Your task to perform on an android device: open sync settings in chrome Image 0: 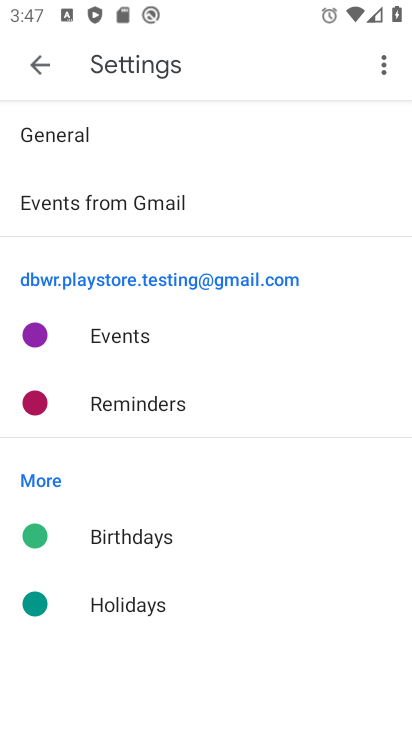
Step 0: press home button
Your task to perform on an android device: open sync settings in chrome Image 1: 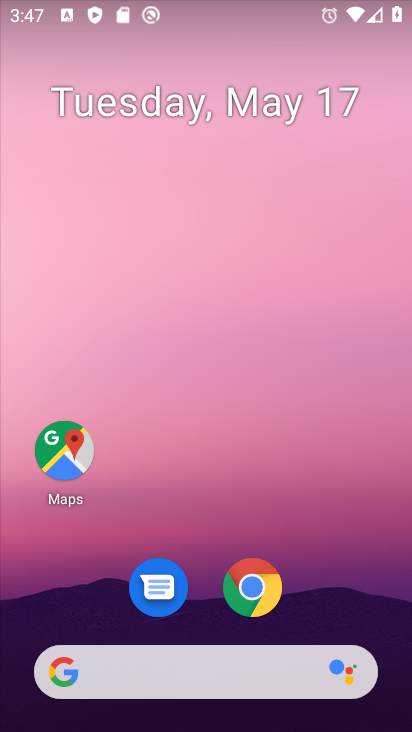
Step 1: drag from (198, 625) to (232, 0)
Your task to perform on an android device: open sync settings in chrome Image 2: 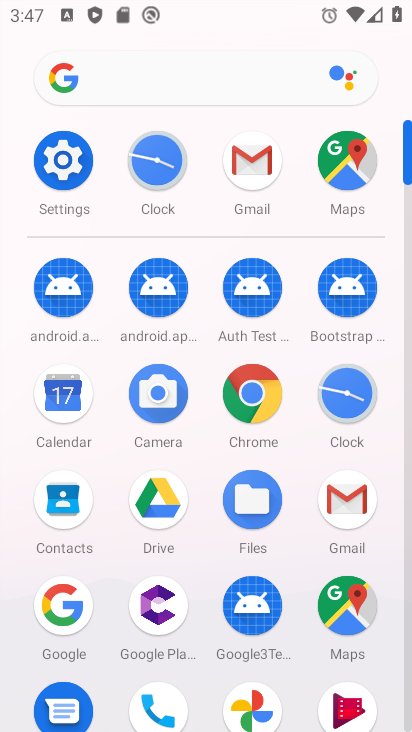
Step 2: click (250, 391)
Your task to perform on an android device: open sync settings in chrome Image 3: 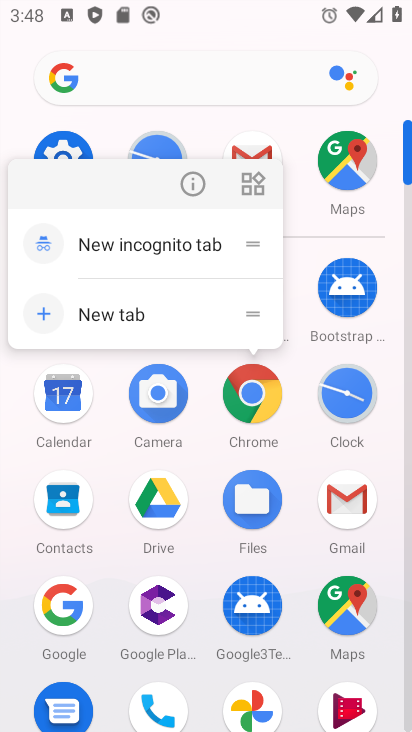
Step 3: click (199, 185)
Your task to perform on an android device: open sync settings in chrome Image 4: 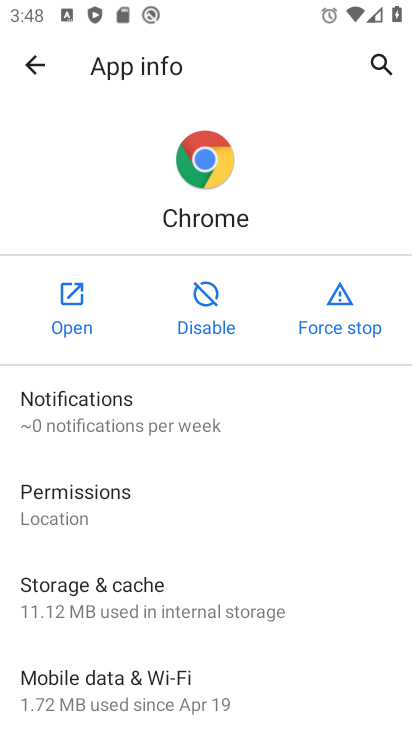
Step 4: click (86, 302)
Your task to perform on an android device: open sync settings in chrome Image 5: 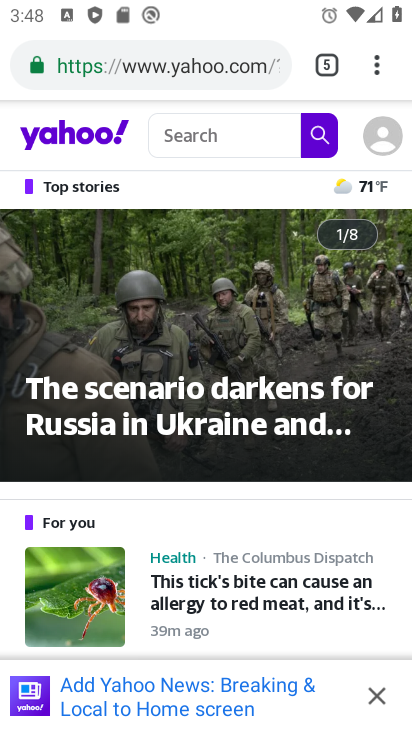
Step 5: drag from (236, 542) to (266, 238)
Your task to perform on an android device: open sync settings in chrome Image 6: 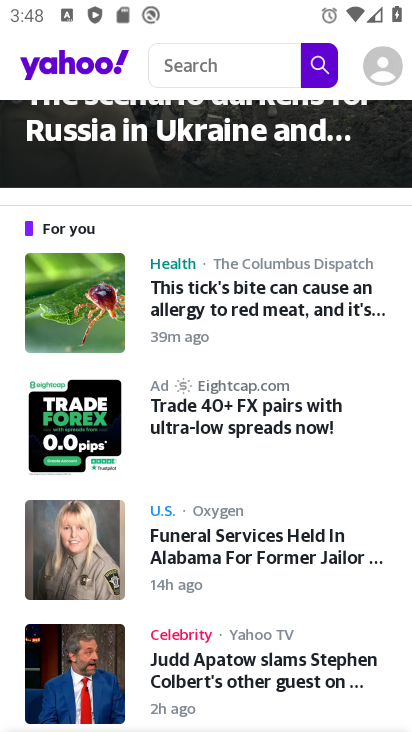
Step 6: drag from (289, 514) to (294, 603)
Your task to perform on an android device: open sync settings in chrome Image 7: 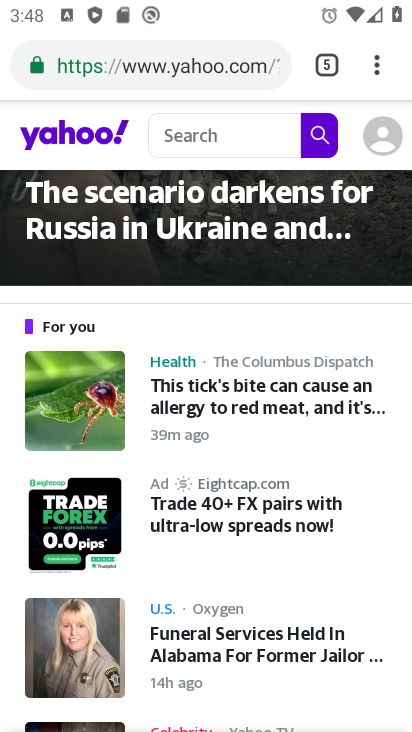
Step 7: drag from (227, 624) to (299, 334)
Your task to perform on an android device: open sync settings in chrome Image 8: 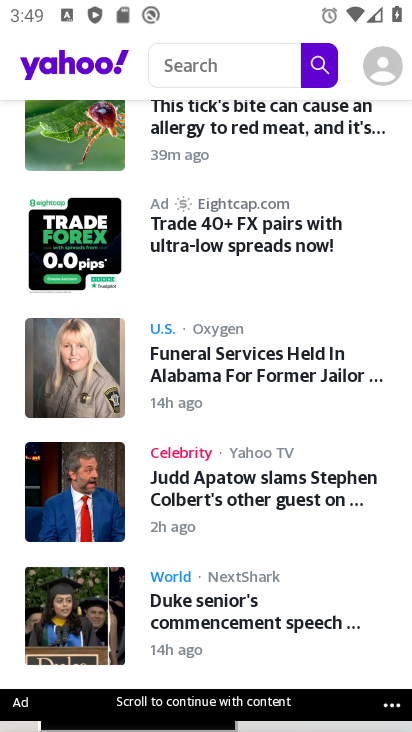
Step 8: drag from (280, 185) to (260, 631)
Your task to perform on an android device: open sync settings in chrome Image 9: 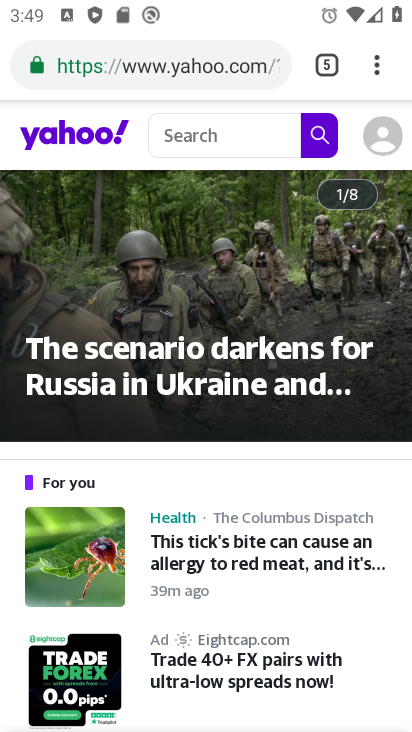
Step 9: click (374, 57)
Your task to perform on an android device: open sync settings in chrome Image 10: 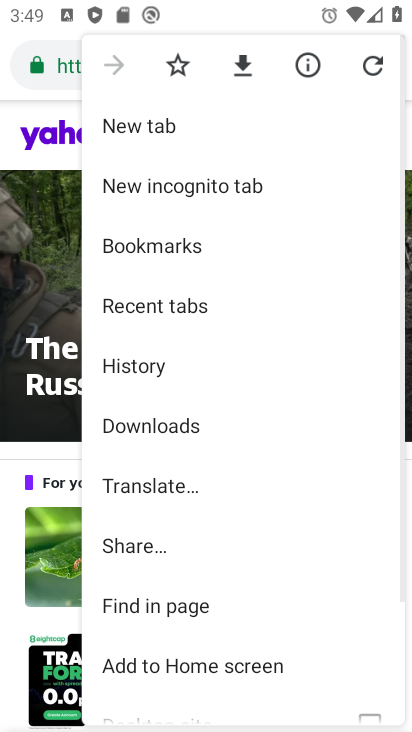
Step 10: drag from (227, 491) to (293, 99)
Your task to perform on an android device: open sync settings in chrome Image 11: 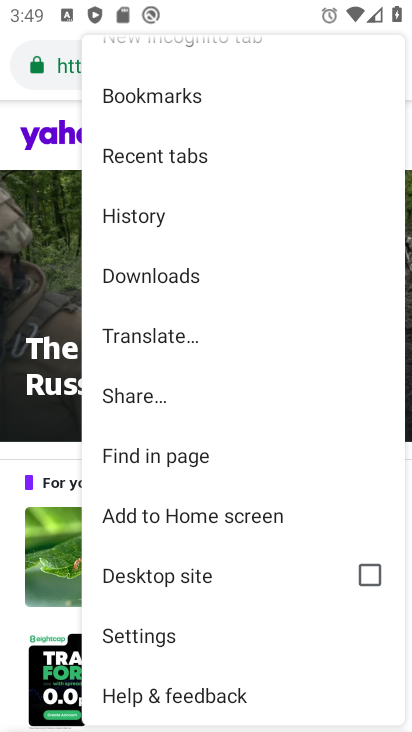
Step 11: click (179, 626)
Your task to perform on an android device: open sync settings in chrome Image 12: 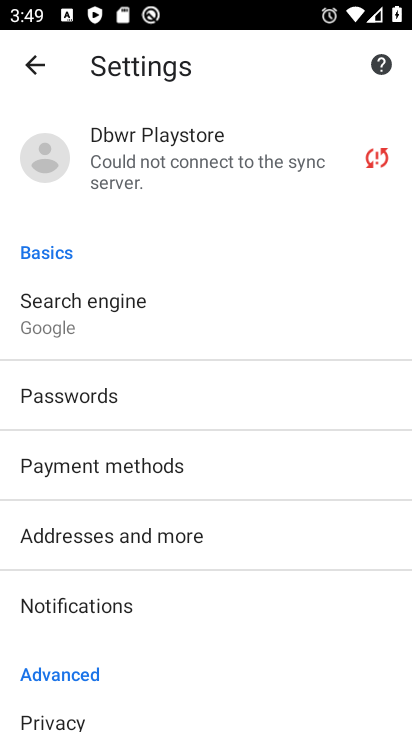
Step 12: drag from (181, 556) to (285, 1)
Your task to perform on an android device: open sync settings in chrome Image 13: 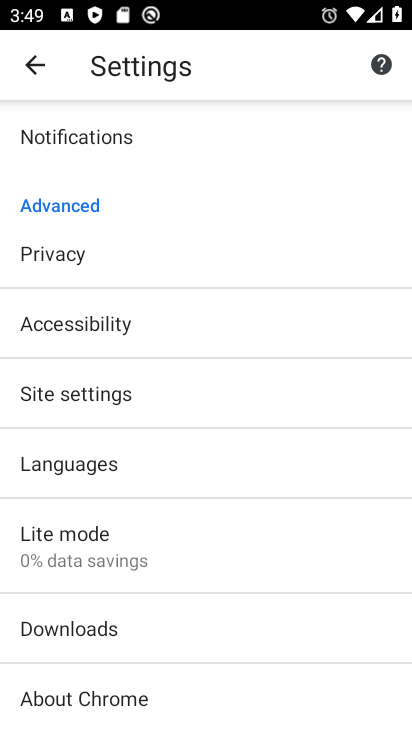
Step 13: click (110, 393)
Your task to perform on an android device: open sync settings in chrome Image 14: 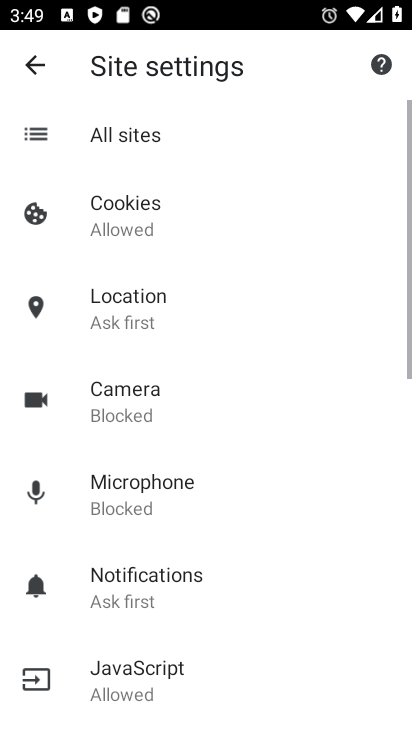
Step 14: drag from (128, 589) to (263, 113)
Your task to perform on an android device: open sync settings in chrome Image 15: 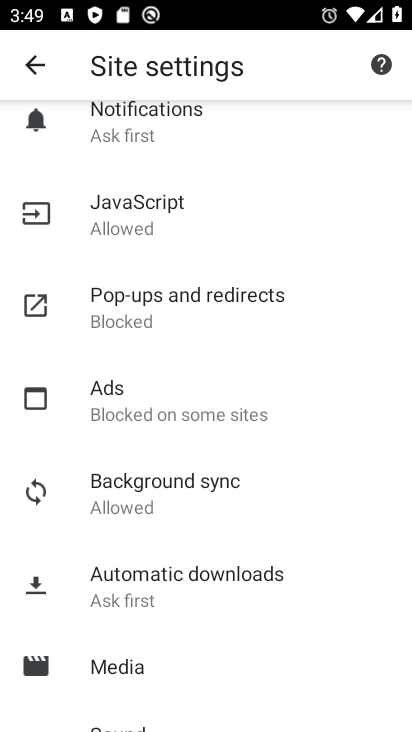
Step 15: click (170, 498)
Your task to perform on an android device: open sync settings in chrome Image 16: 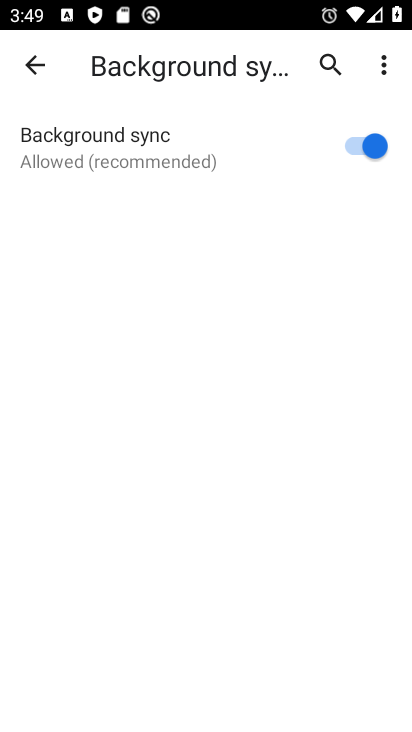
Step 16: task complete